Your task to perform on an android device: When is my next meeting? Image 0: 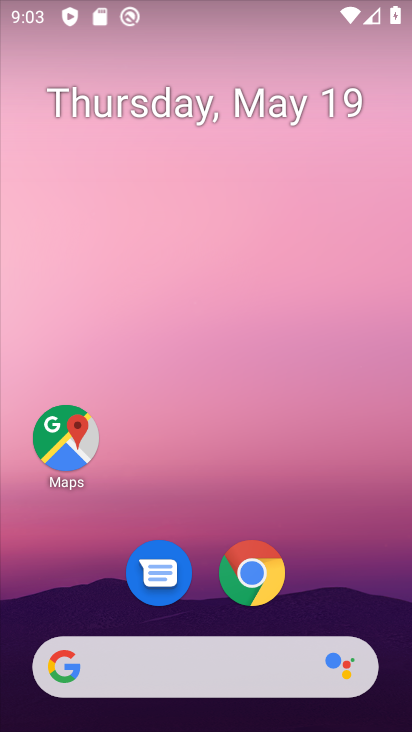
Step 0: drag from (204, 618) to (208, 208)
Your task to perform on an android device: When is my next meeting? Image 1: 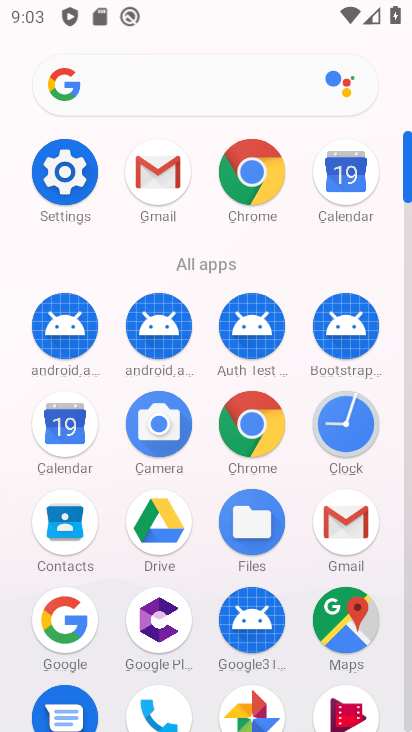
Step 1: click (70, 398)
Your task to perform on an android device: When is my next meeting? Image 2: 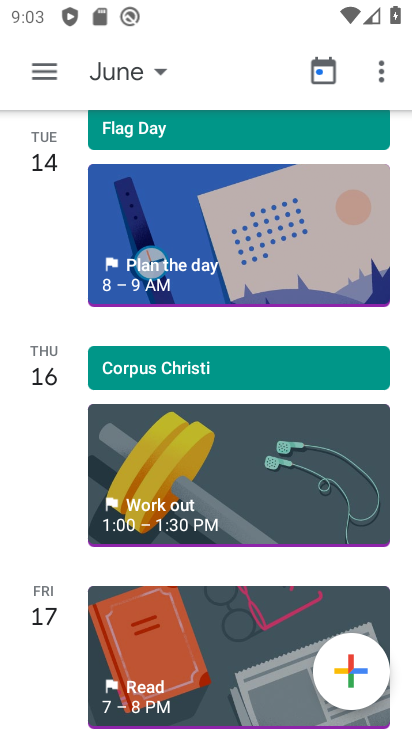
Step 2: task complete